Your task to perform on an android device: Show me productivity apps on the Play Store Image 0: 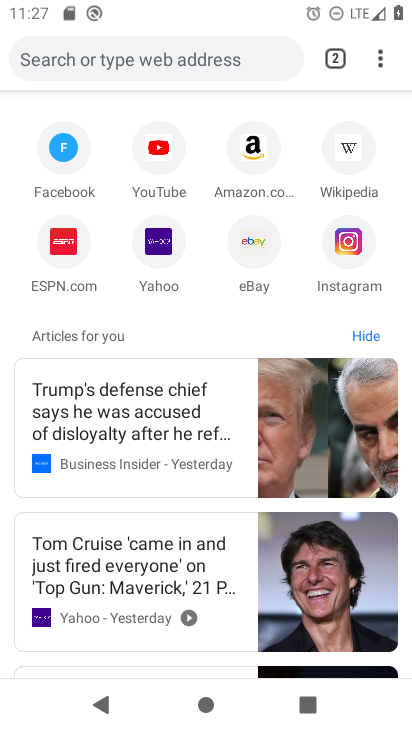
Step 0: press home button
Your task to perform on an android device: Show me productivity apps on the Play Store Image 1: 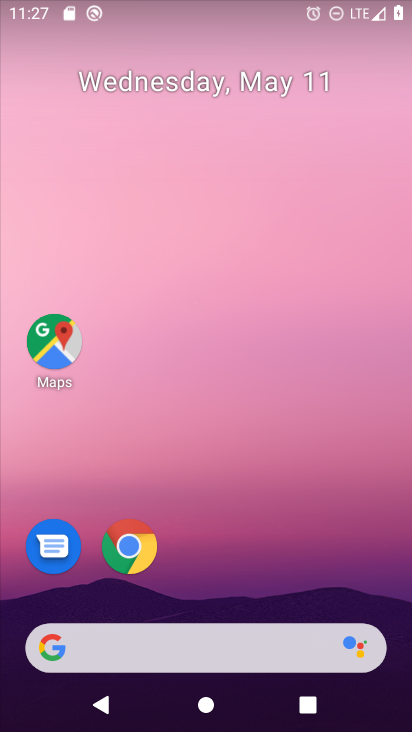
Step 1: drag from (405, 644) to (254, 99)
Your task to perform on an android device: Show me productivity apps on the Play Store Image 2: 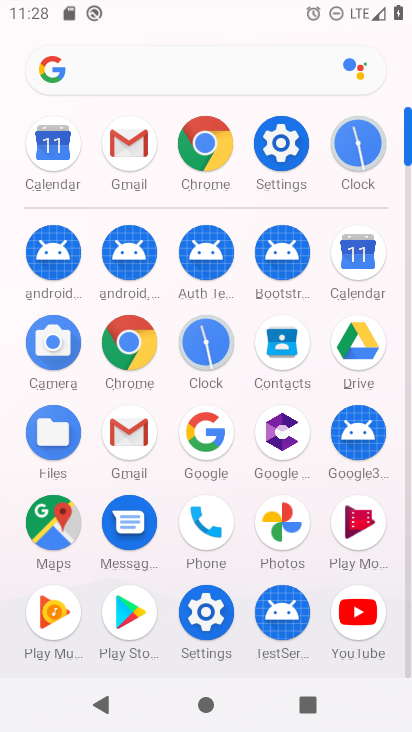
Step 2: click (122, 614)
Your task to perform on an android device: Show me productivity apps on the Play Store Image 3: 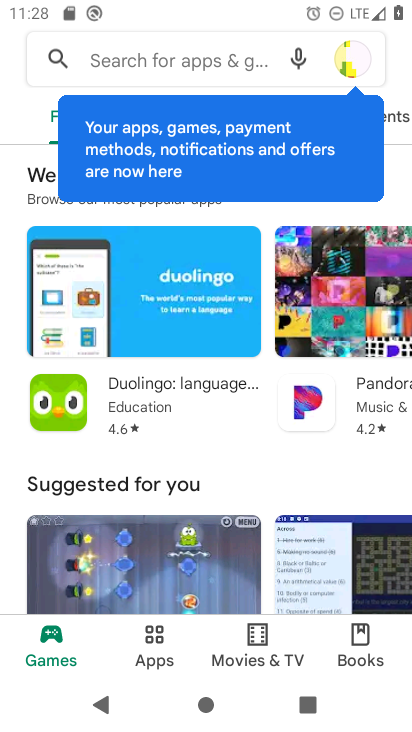
Step 3: task complete